Your task to perform on an android device: open sync settings in chrome Image 0: 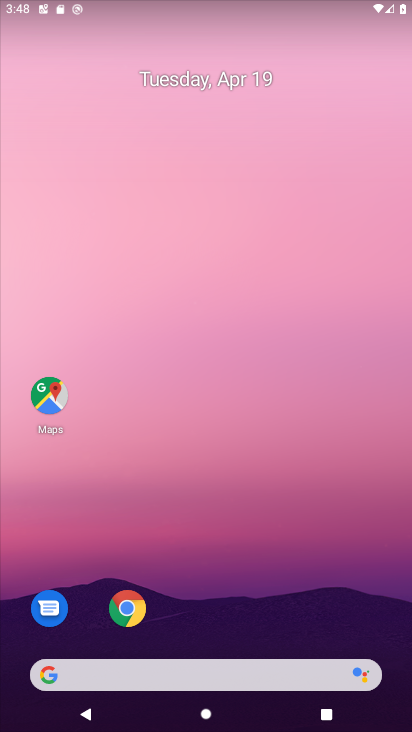
Step 0: drag from (277, 632) to (292, 63)
Your task to perform on an android device: open sync settings in chrome Image 1: 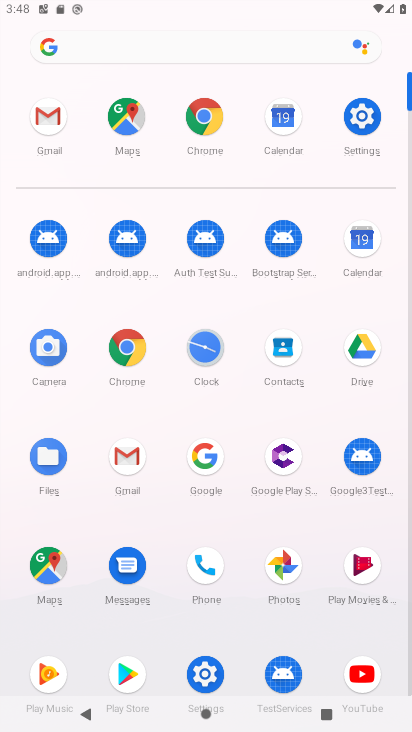
Step 1: click (209, 111)
Your task to perform on an android device: open sync settings in chrome Image 2: 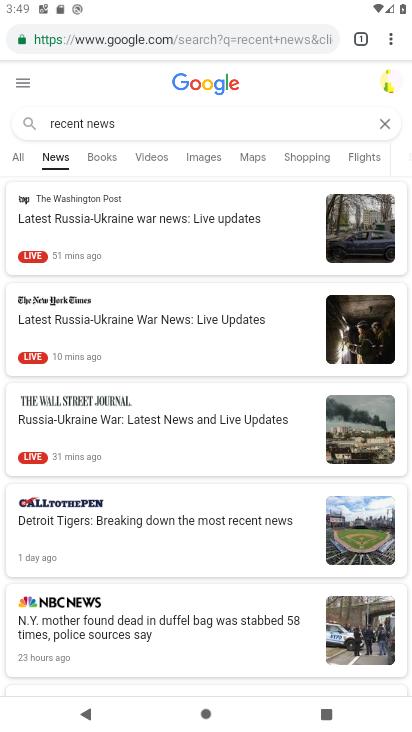
Step 2: click (389, 36)
Your task to perform on an android device: open sync settings in chrome Image 3: 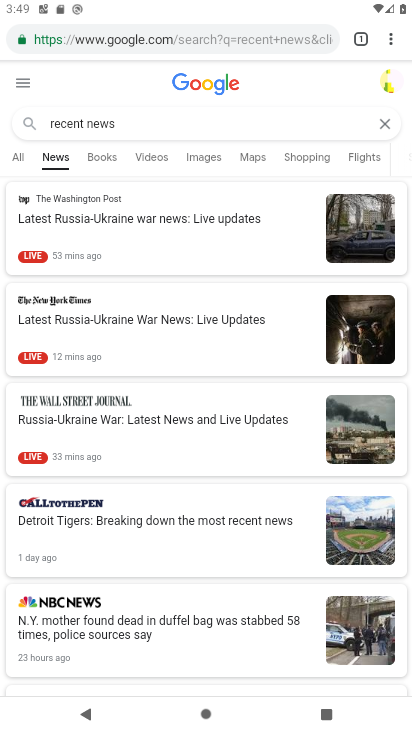
Step 3: click (389, 40)
Your task to perform on an android device: open sync settings in chrome Image 4: 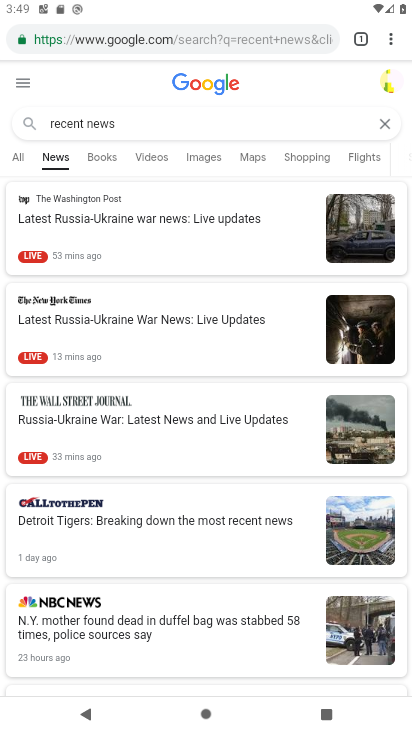
Step 4: drag from (389, 36) to (246, 443)
Your task to perform on an android device: open sync settings in chrome Image 5: 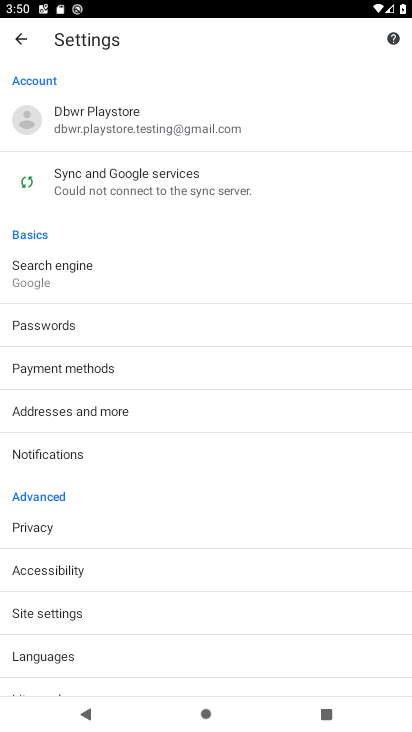
Step 5: click (85, 171)
Your task to perform on an android device: open sync settings in chrome Image 6: 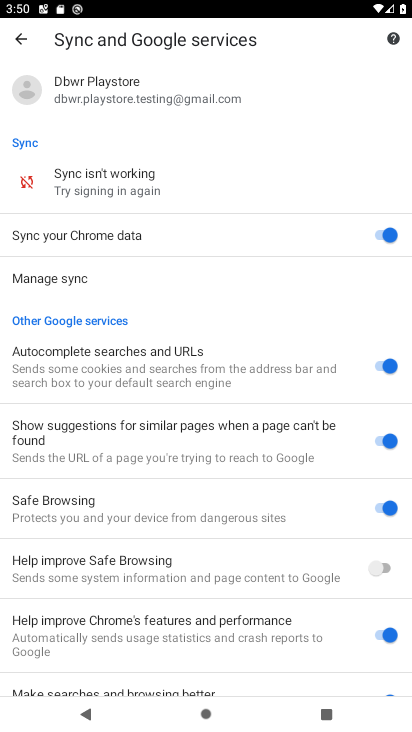
Step 6: task complete